Your task to perform on an android device: Toggle the flashlight Image 0: 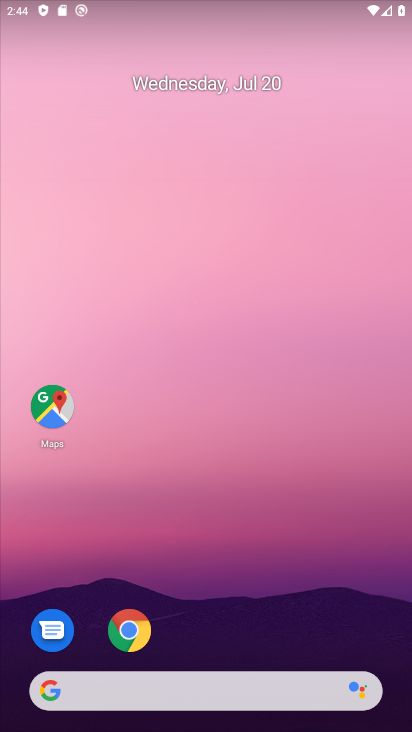
Step 0: drag from (223, 586) to (177, 92)
Your task to perform on an android device: Toggle the flashlight Image 1: 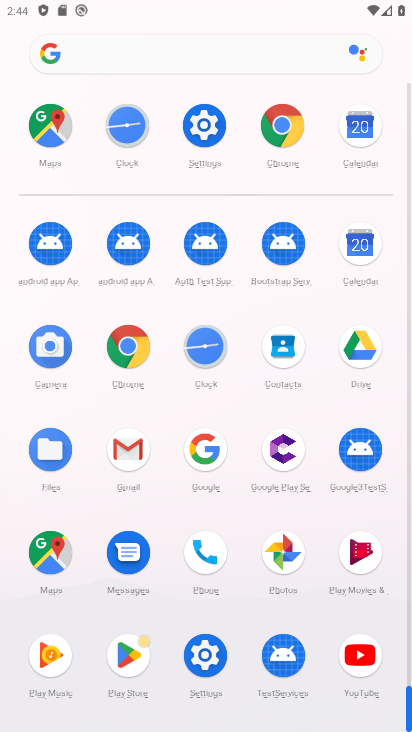
Step 1: task complete